Your task to perform on an android device: turn on the 24-hour format for clock Image 0: 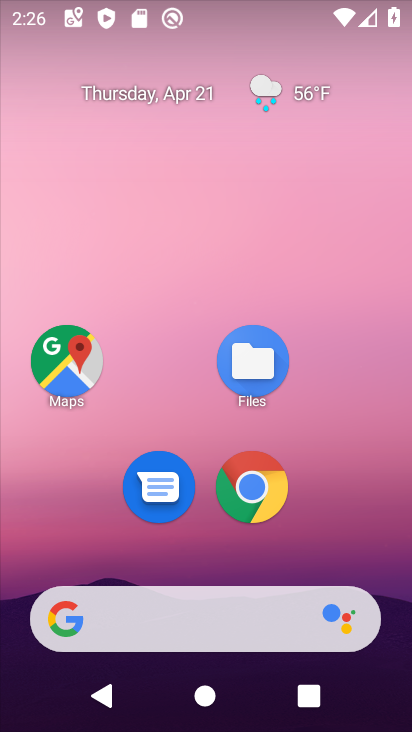
Step 0: drag from (367, 546) to (357, 208)
Your task to perform on an android device: turn on the 24-hour format for clock Image 1: 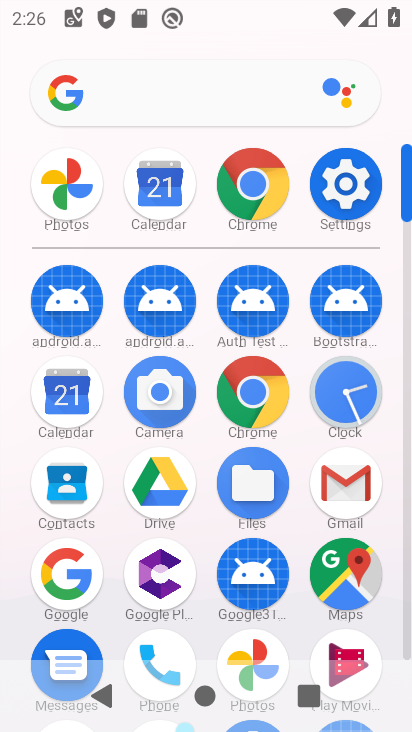
Step 1: click (343, 386)
Your task to perform on an android device: turn on the 24-hour format for clock Image 2: 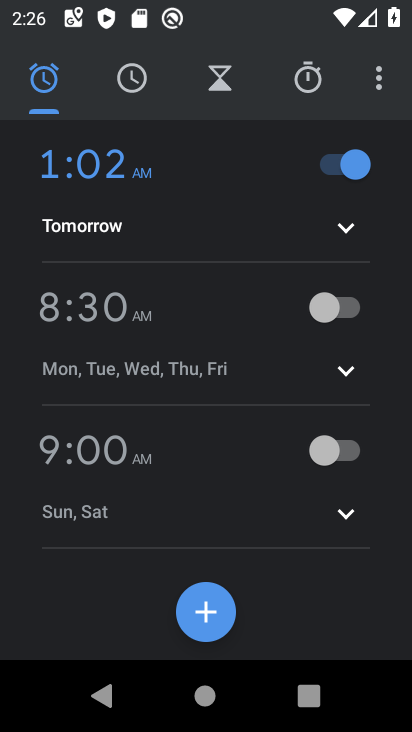
Step 2: click (377, 83)
Your task to perform on an android device: turn on the 24-hour format for clock Image 3: 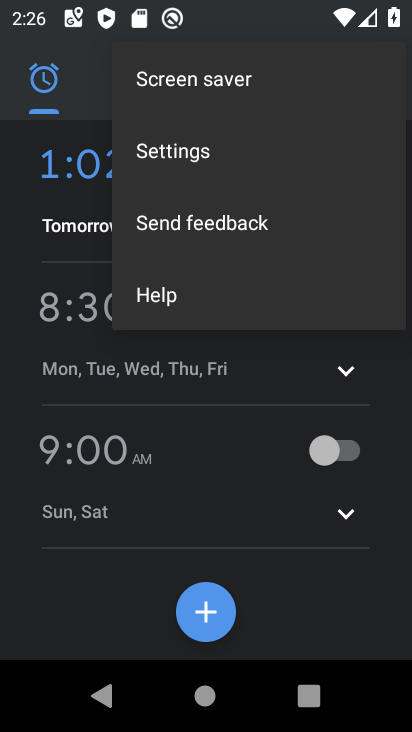
Step 3: click (176, 147)
Your task to perform on an android device: turn on the 24-hour format for clock Image 4: 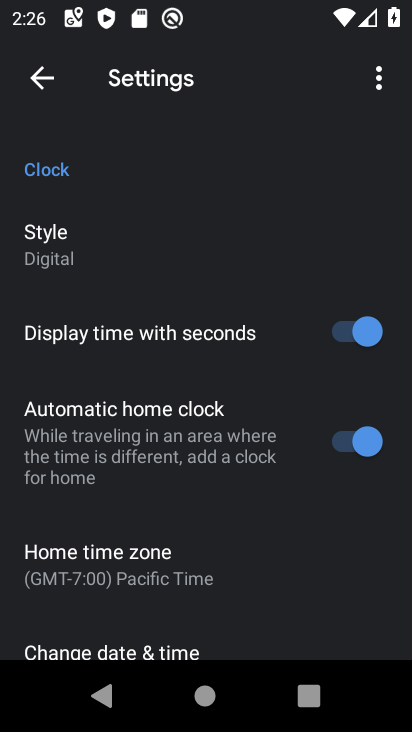
Step 4: drag from (240, 594) to (274, 259)
Your task to perform on an android device: turn on the 24-hour format for clock Image 5: 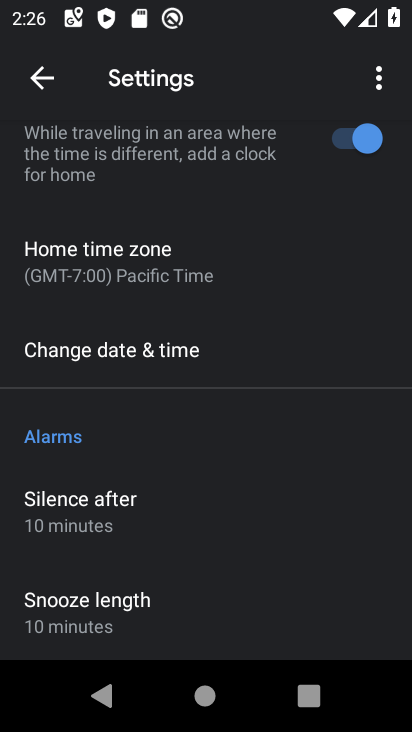
Step 5: click (193, 362)
Your task to perform on an android device: turn on the 24-hour format for clock Image 6: 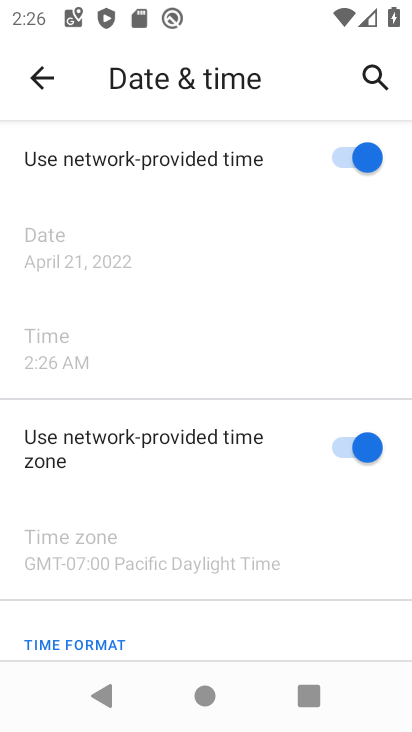
Step 6: drag from (241, 620) to (222, 272)
Your task to perform on an android device: turn on the 24-hour format for clock Image 7: 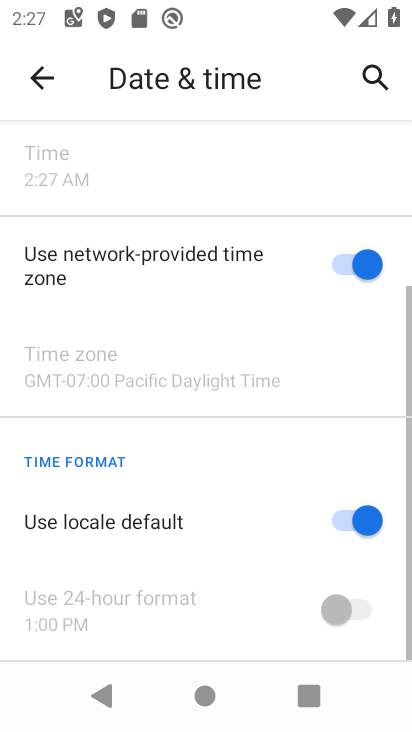
Step 7: click (343, 527)
Your task to perform on an android device: turn on the 24-hour format for clock Image 8: 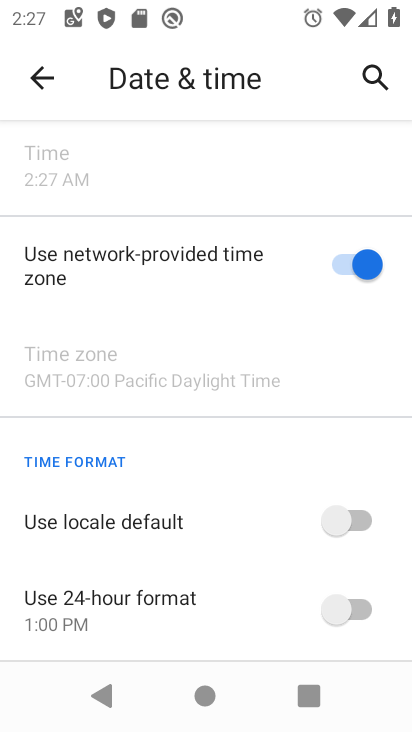
Step 8: click (355, 607)
Your task to perform on an android device: turn on the 24-hour format for clock Image 9: 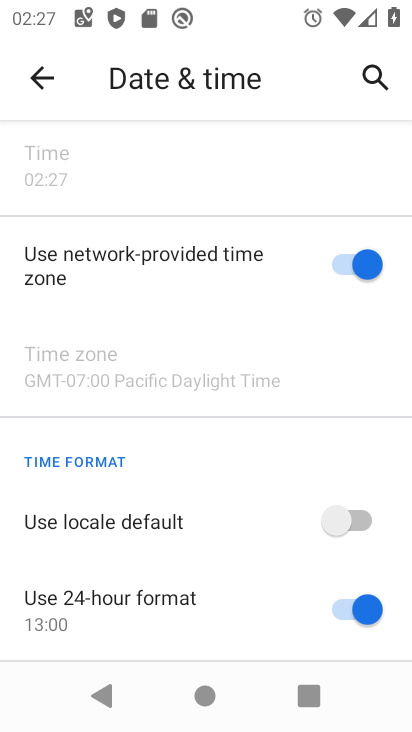
Step 9: task complete